Your task to perform on an android device: Is it going to rain this weekend? Image 0: 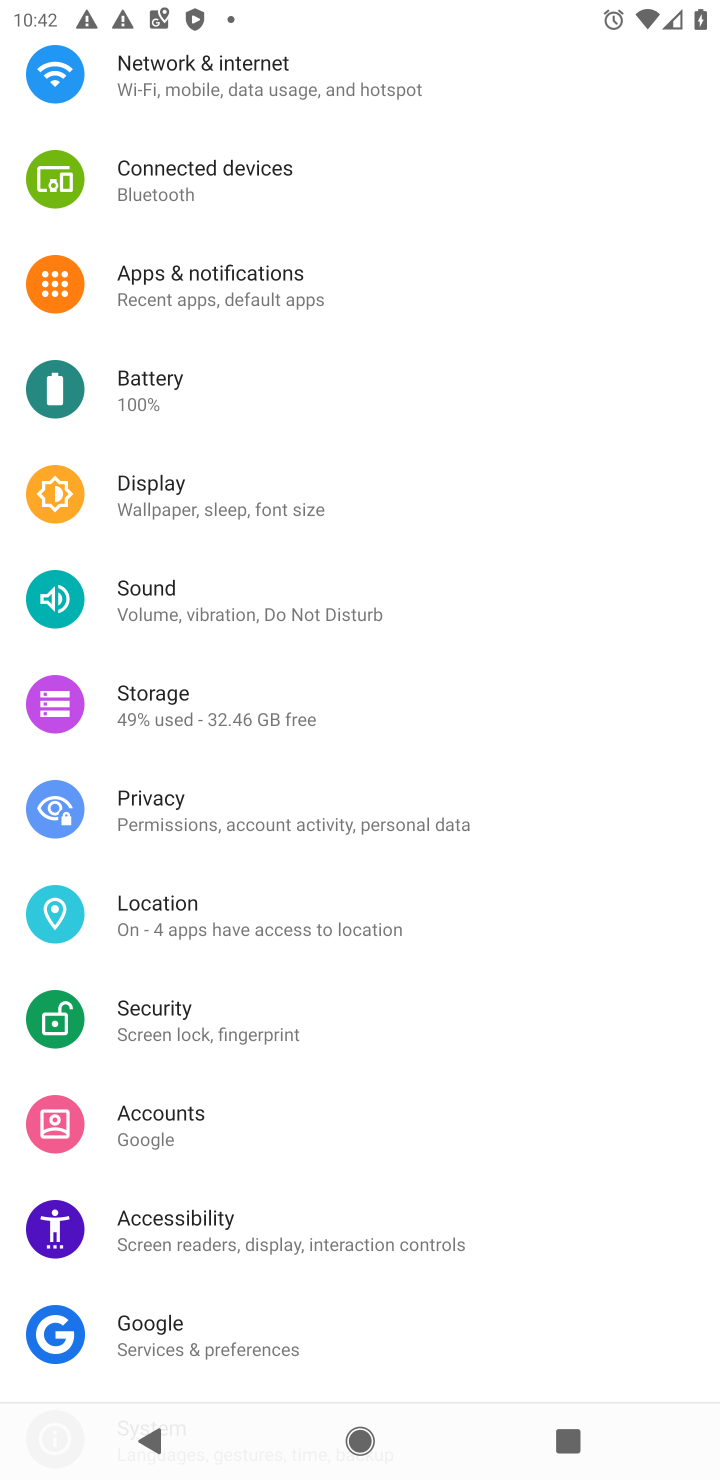
Step 0: press home button
Your task to perform on an android device: Is it going to rain this weekend? Image 1: 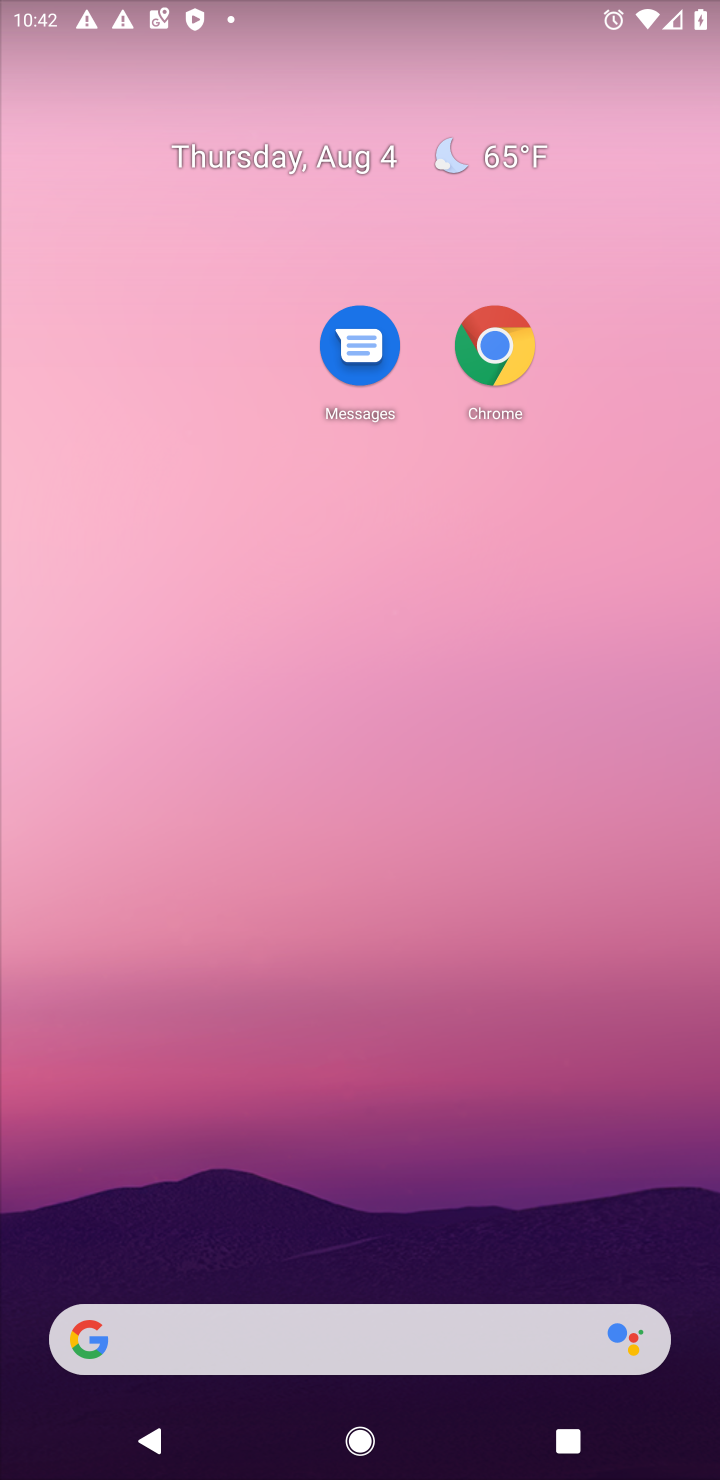
Step 1: drag from (373, 1239) to (484, 140)
Your task to perform on an android device: Is it going to rain this weekend? Image 2: 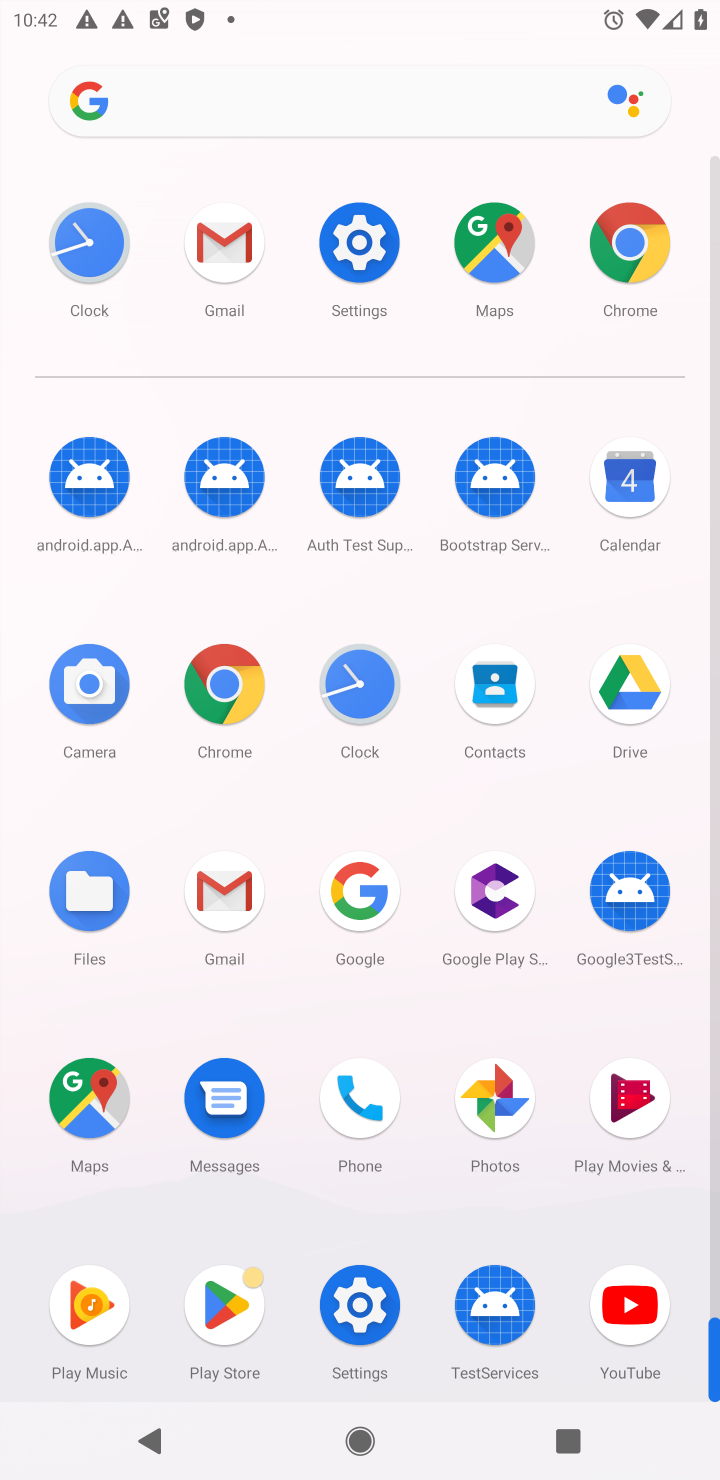
Step 2: click (346, 929)
Your task to perform on an android device: Is it going to rain this weekend? Image 3: 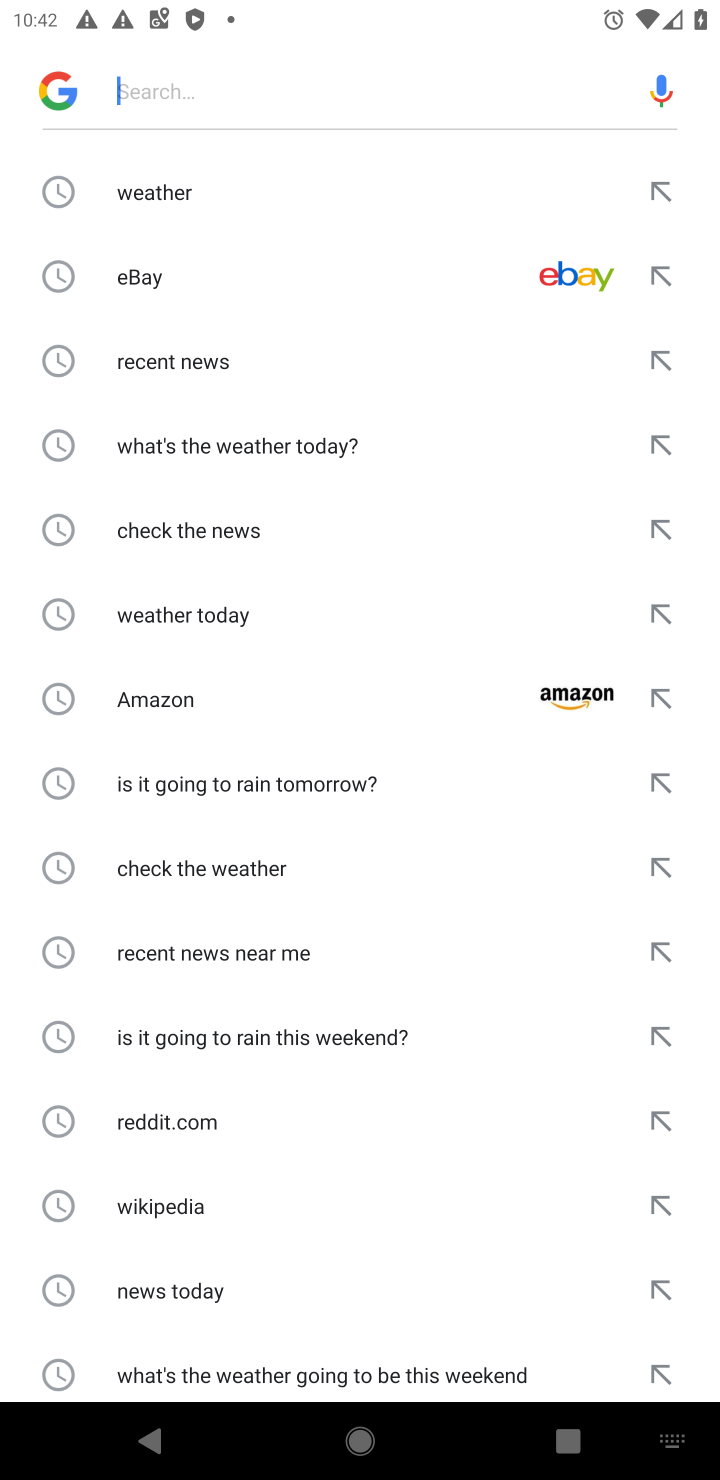
Step 3: click (143, 195)
Your task to perform on an android device: Is it going to rain this weekend? Image 4: 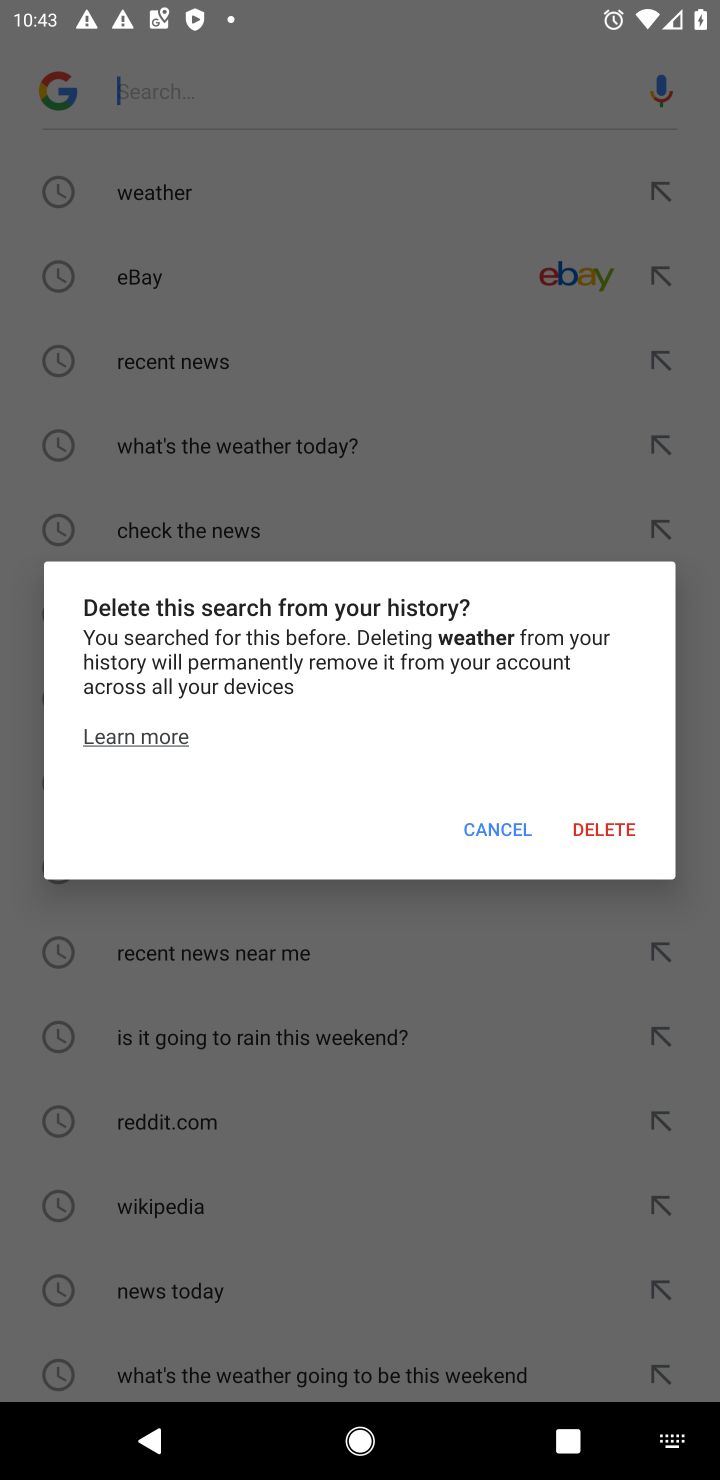
Step 4: click (514, 832)
Your task to perform on an android device: Is it going to rain this weekend? Image 5: 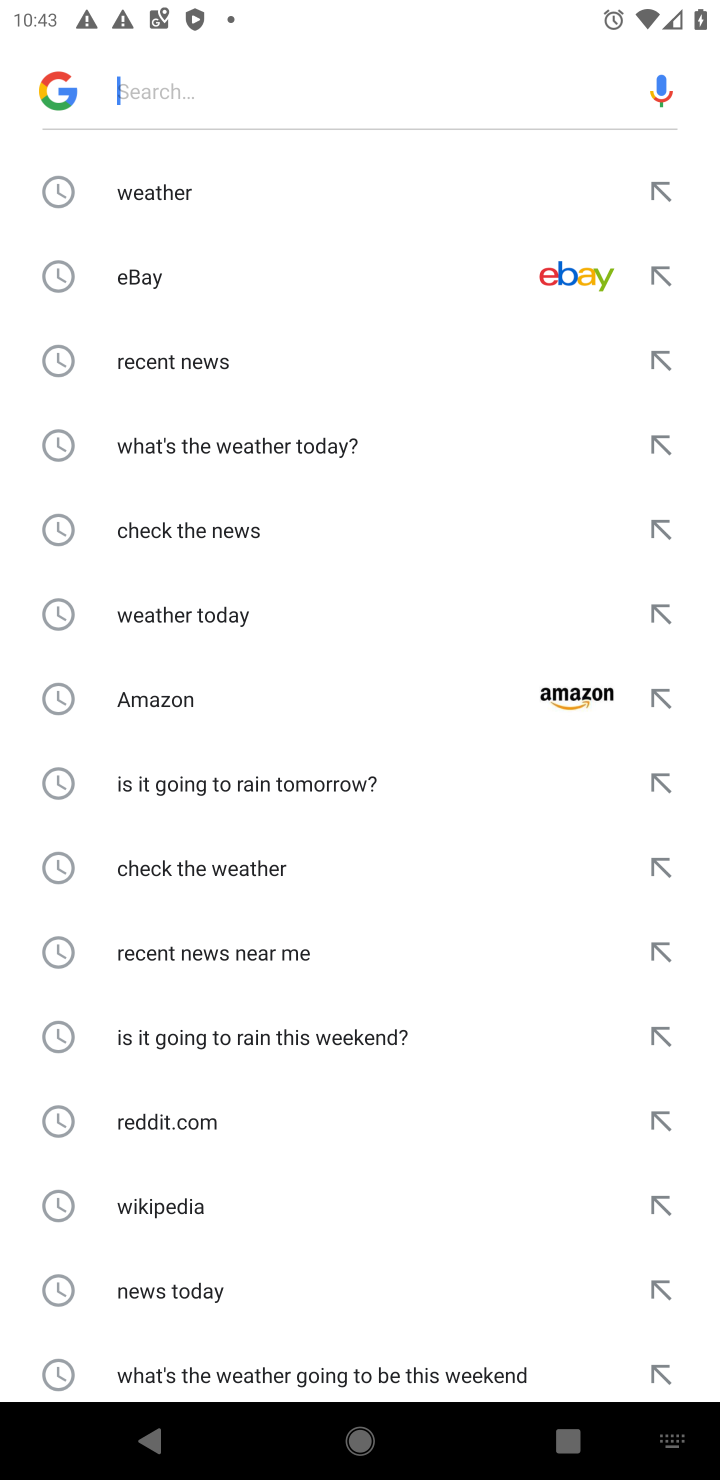
Step 5: click (153, 198)
Your task to perform on an android device: Is it going to rain this weekend? Image 6: 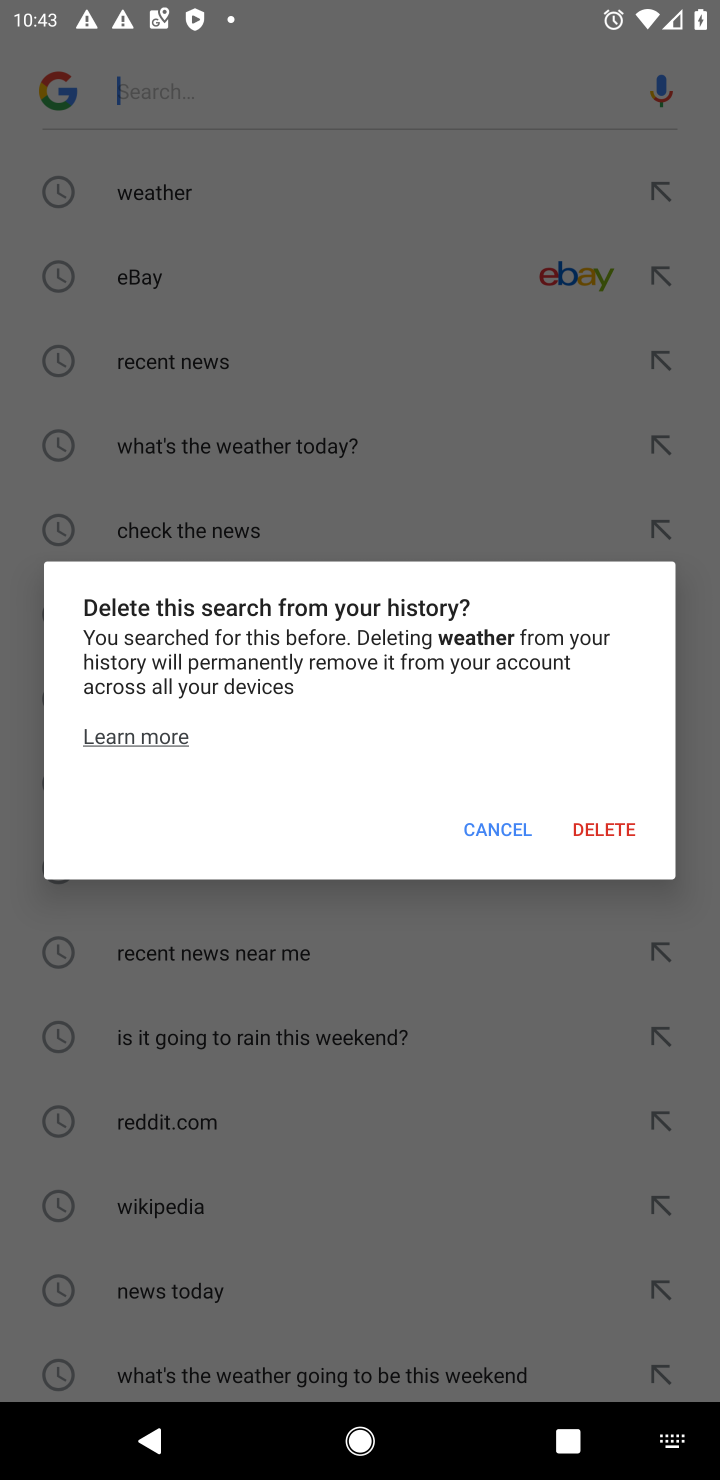
Step 6: click (496, 820)
Your task to perform on an android device: Is it going to rain this weekend? Image 7: 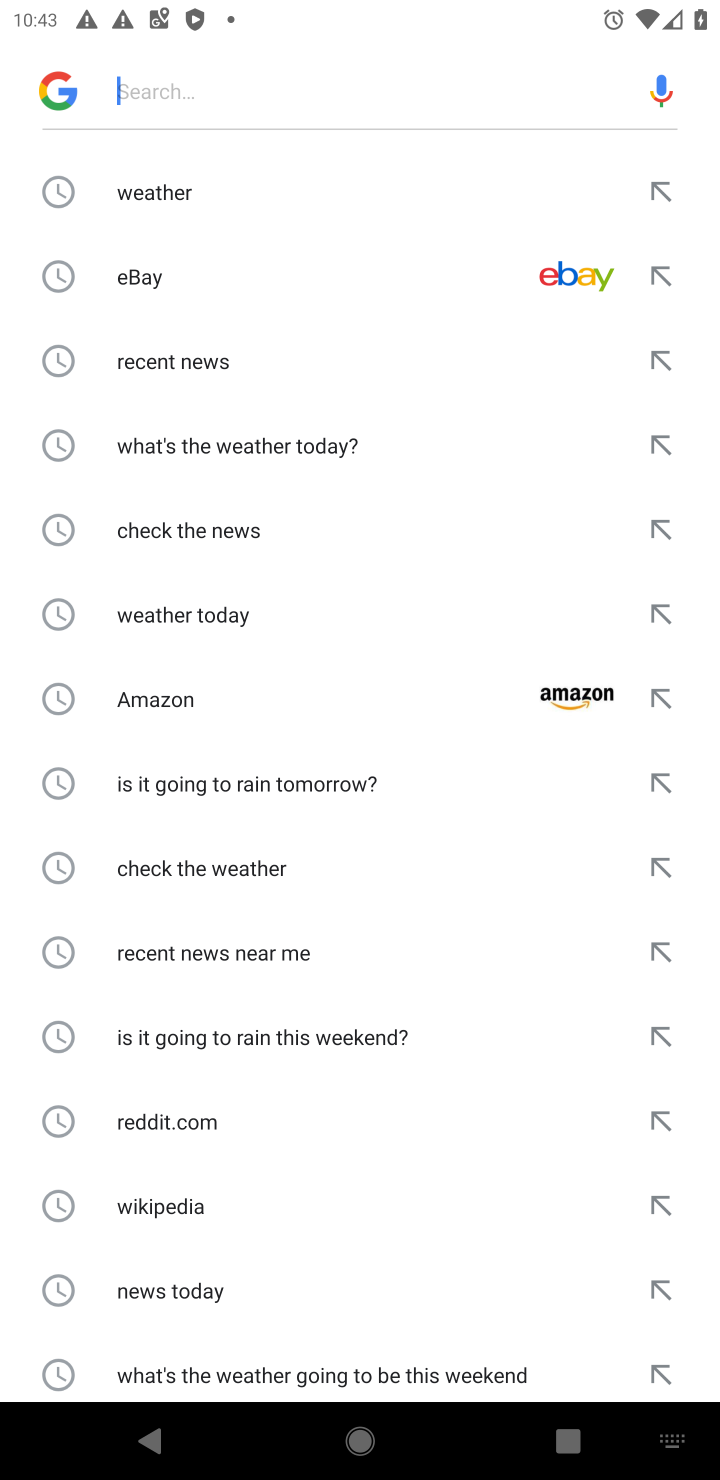
Step 7: click (140, 181)
Your task to perform on an android device: Is it going to rain this weekend? Image 8: 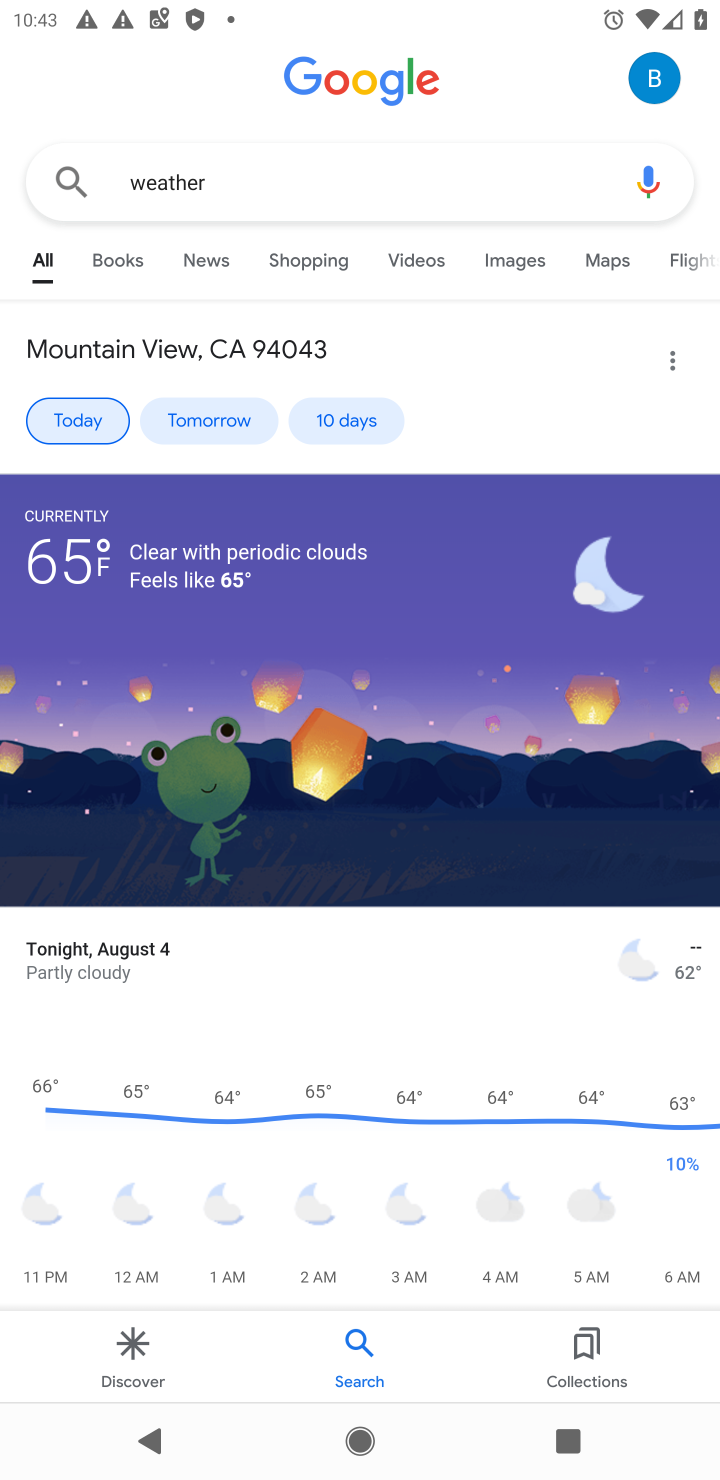
Step 8: click (361, 417)
Your task to perform on an android device: Is it going to rain this weekend? Image 9: 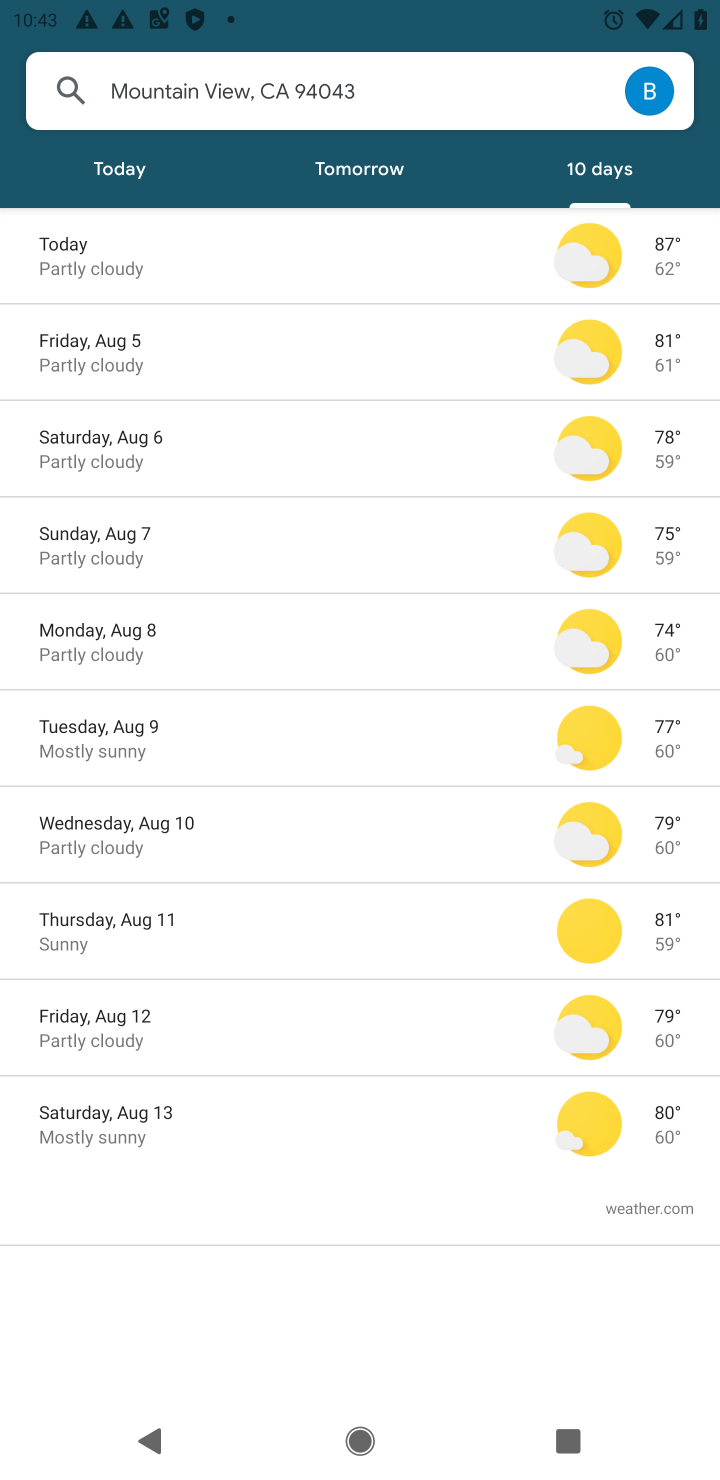
Step 9: task complete